Your task to perform on an android device: Clear the shopping cart on bestbuy. Add "lg ultragear" to the cart on bestbuy, then select checkout. Image 0: 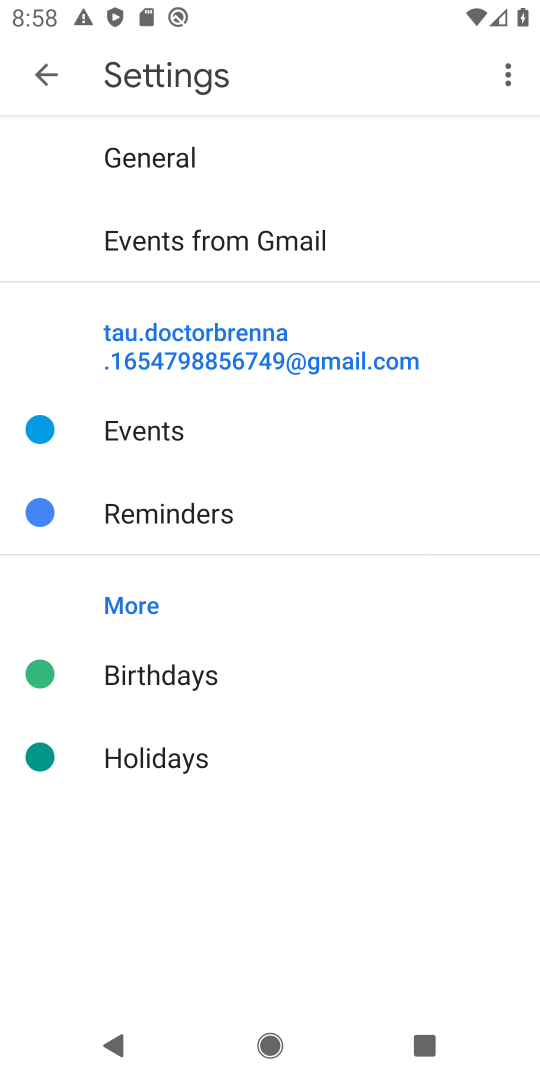
Step 0: press home button
Your task to perform on an android device: Clear the shopping cart on bestbuy. Add "lg ultragear" to the cart on bestbuy, then select checkout. Image 1: 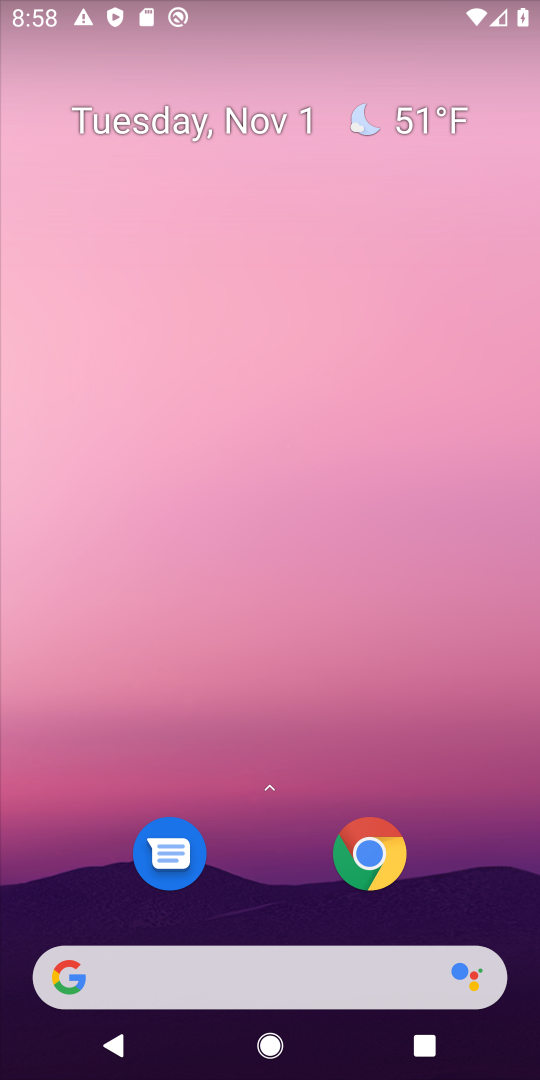
Step 1: click (300, 980)
Your task to perform on an android device: Clear the shopping cart on bestbuy. Add "lg ultragear" to the cart on bestbuy, then select checkout. Image 2: 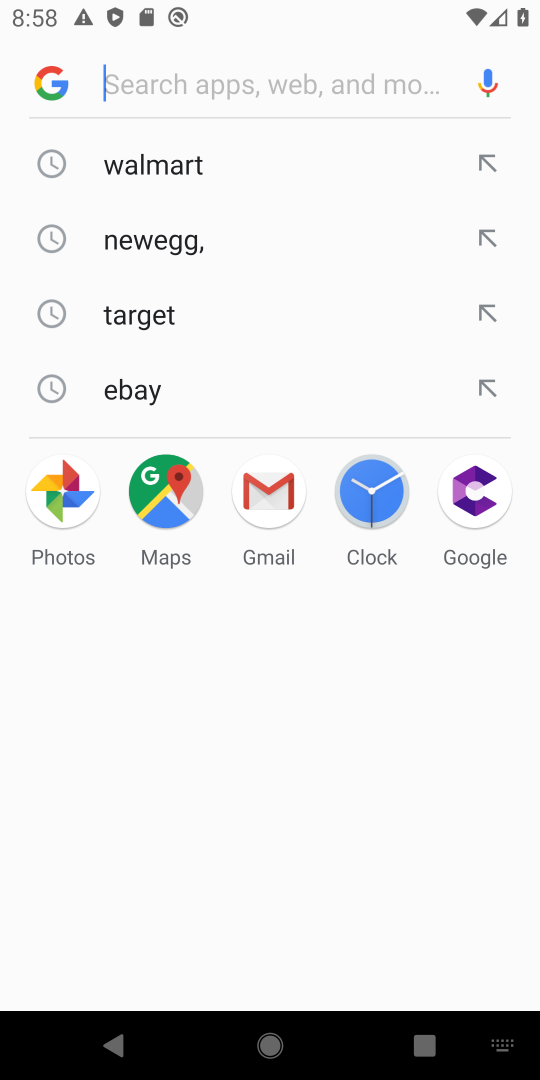
Step 2: type "bestbuy"
Your task to perform on an android device: Clear the shopping cart on bestbuy. Add "lg ultragear" to the cart on bestbuy, then select checkout. Image 3: 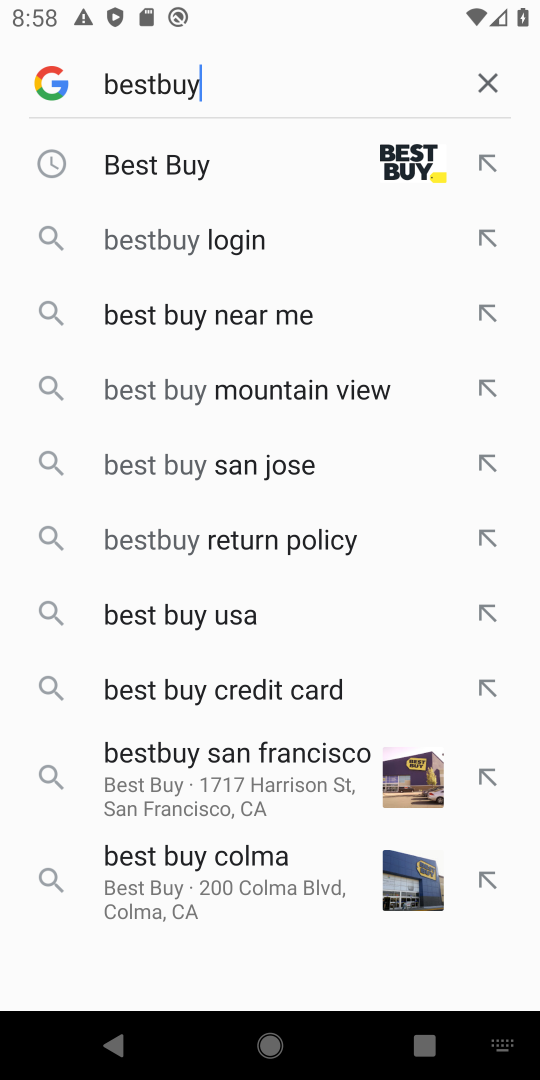
Step 3: click (335, 138)
Your task to perform on an android device: Clear the shopping cart on bestbuy. Add "lg ultragear" to the cart on bestbuy, then select checkout. Image 4: 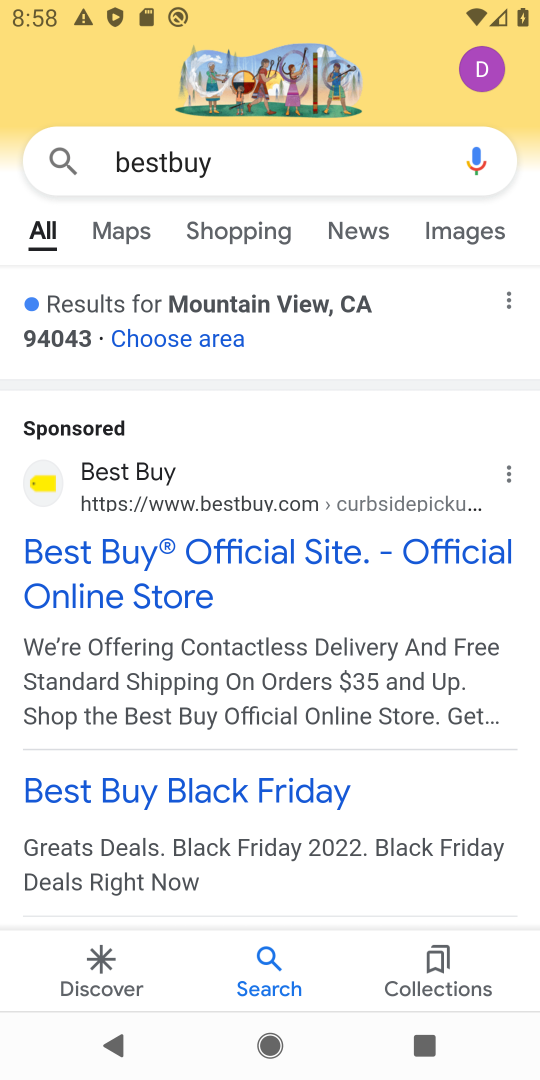
Step 4: click (159, 565)
Your task to perform on an android device: Clear the shopping cart on bestbuy. Add "lg ultragear" to the cart on bestbuy, then select checkout. Image 5: 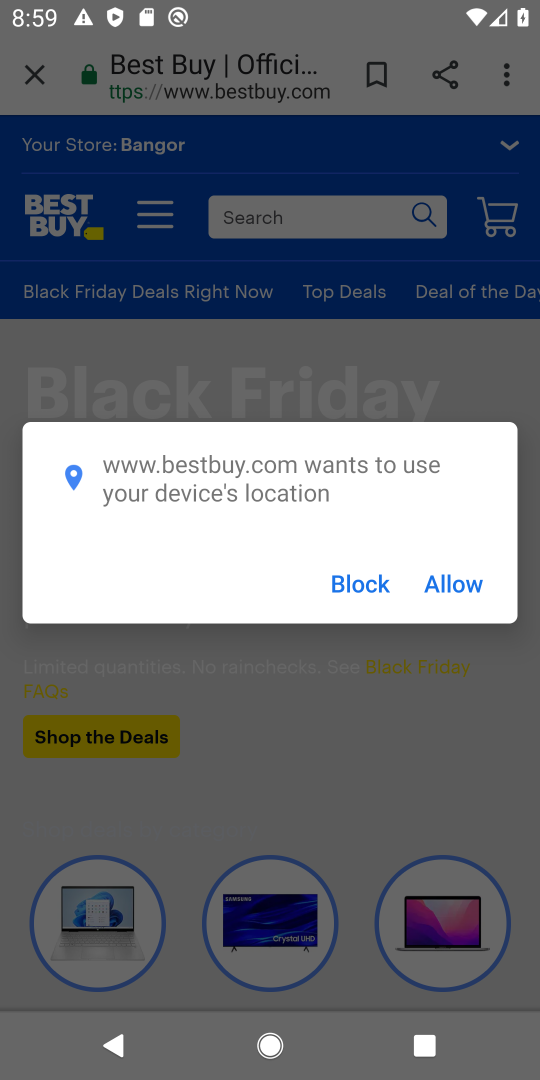
Step 5: click (319, 589)
Your task to perform on an android device: Clear the shopping cart on bestbuy. Add "lg ultragear" to the cart on bestbuy, then select checkout. Image 6: 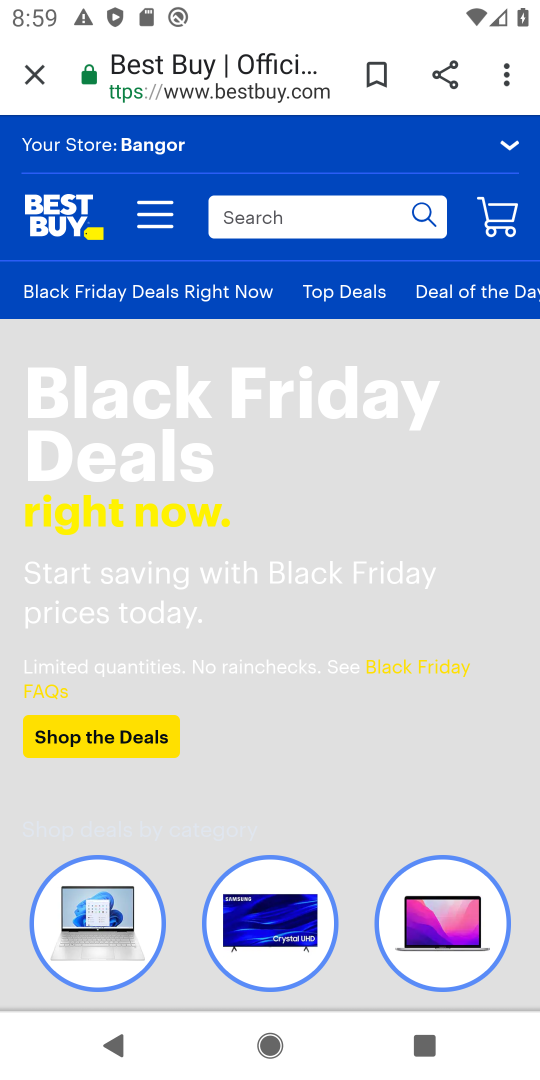
Step 6: click (252, 230)
Your task to perform on an android device: Clear the shopping cart on bestbuy. Add "lg ultragear" to the cart on bestbuy, then select checkout. Image 7: 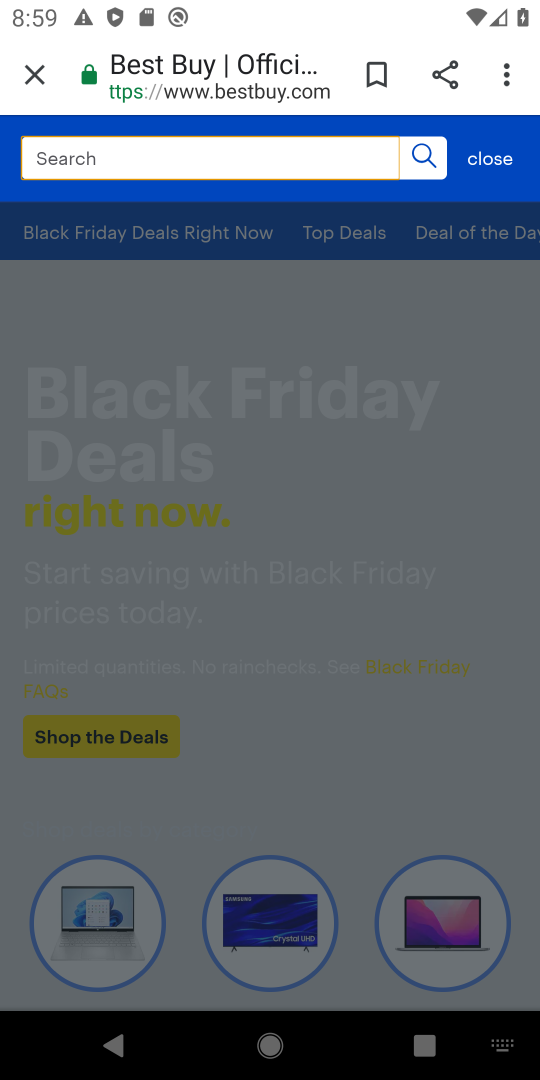
Step 7: type "lg ultragear"
Your task to perform on an android device: Clear the shopping cart on bestbuy. Add "lg ultragear" to the cart on bestbuy, then select checkout. Image 8: 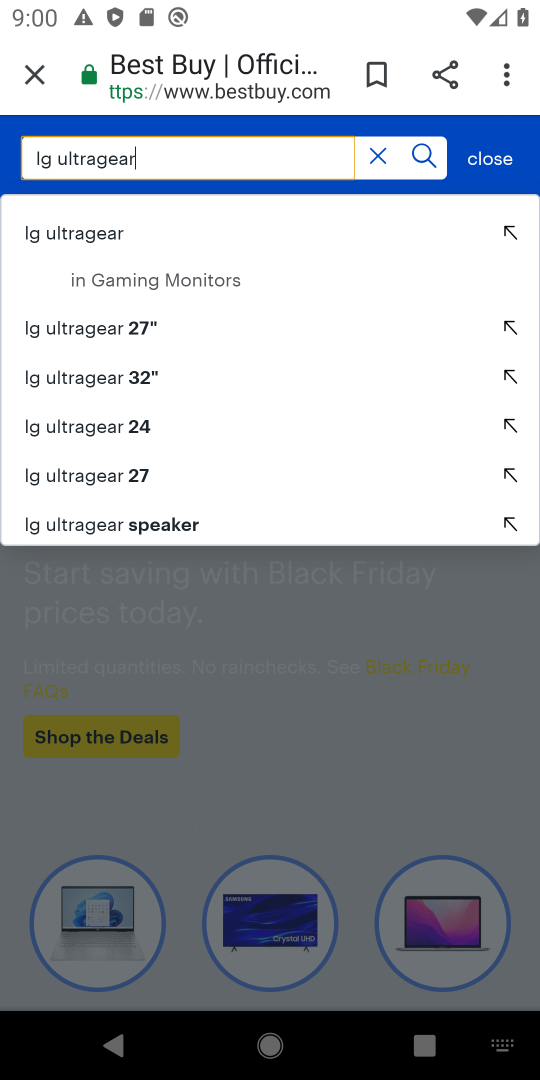
Step 8: click (287, 239)
Your task to perform on an android device: Clear the shopping cart on bestbuy. Add "lg ultragear" to the cart on bestbuy, then select checkout. Image 9: 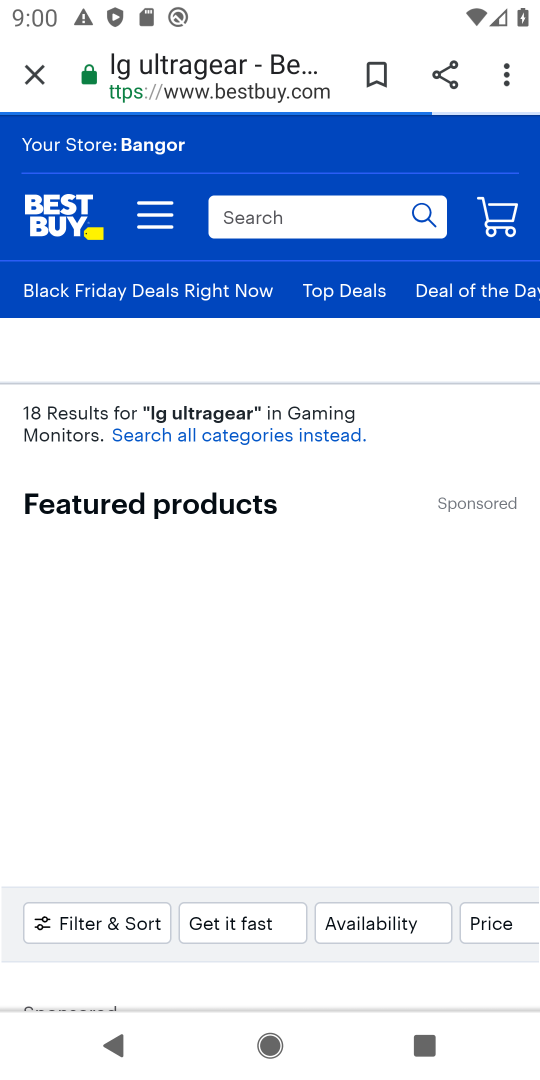
Step 9: drag from (272, 733) to (289, 330)
Your task to perform on an android device: Clear the shopping cart on bestbuy. Add "lg ultragear" to the cart on bestbuy, then select checkout. Image 10: 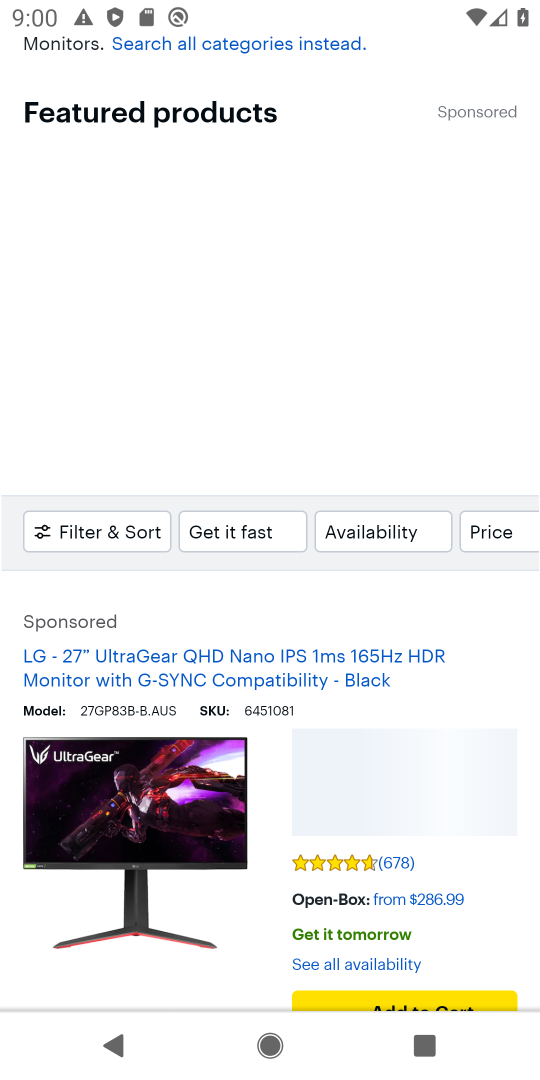
Step 10: click (347, 946)
Your task to perform on an android device: Clear the shopping cart on bestbuy. Add "lg ultragear" to the cart on bestbuy, then select checkout. Image 11: 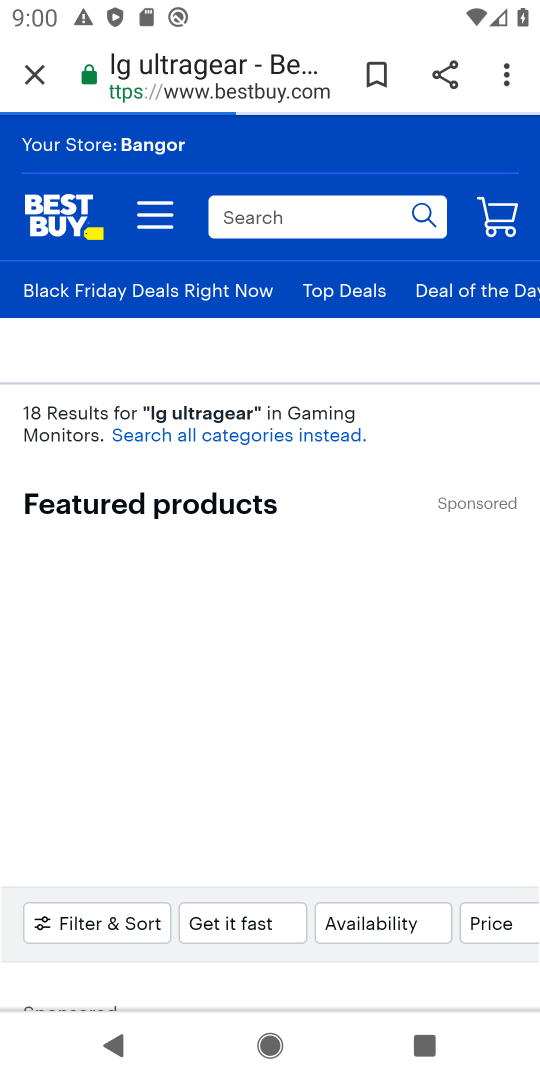
Step 11: drag from (358, 931) to (358, 554)
Your task to perform on an android device: Clear the shopping cart on bestbuy. Add "lg ultragear" to the cart on bestbuy, then select checkout. Image 12: 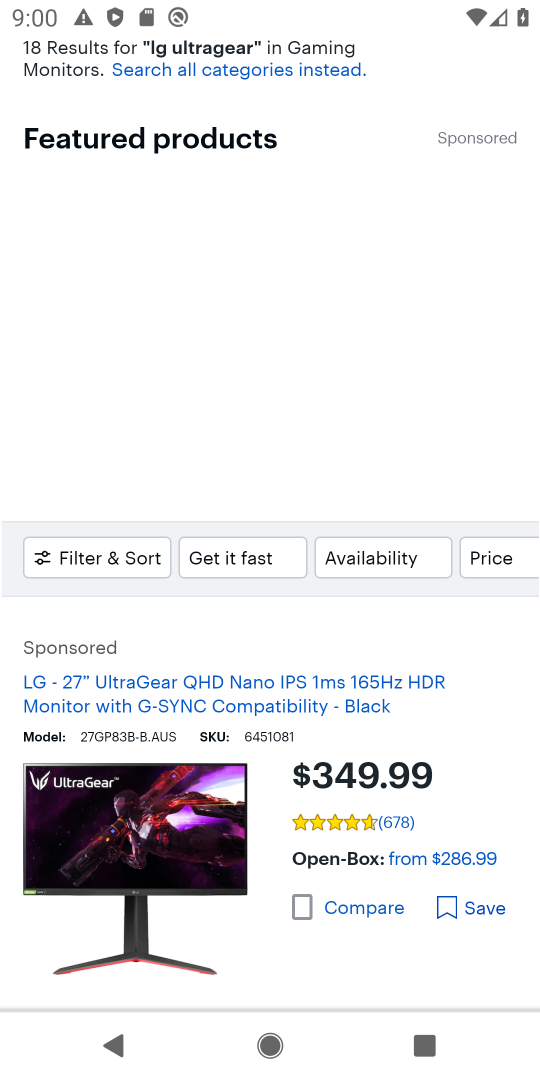
Step 12: drag from (320, 949) to (336, 682)
Your task to perform on an android device: Clear the shopping cart on bestbuy. Add "lg ultragear" to the cart on bestbuy, then select checkout. Image 13: 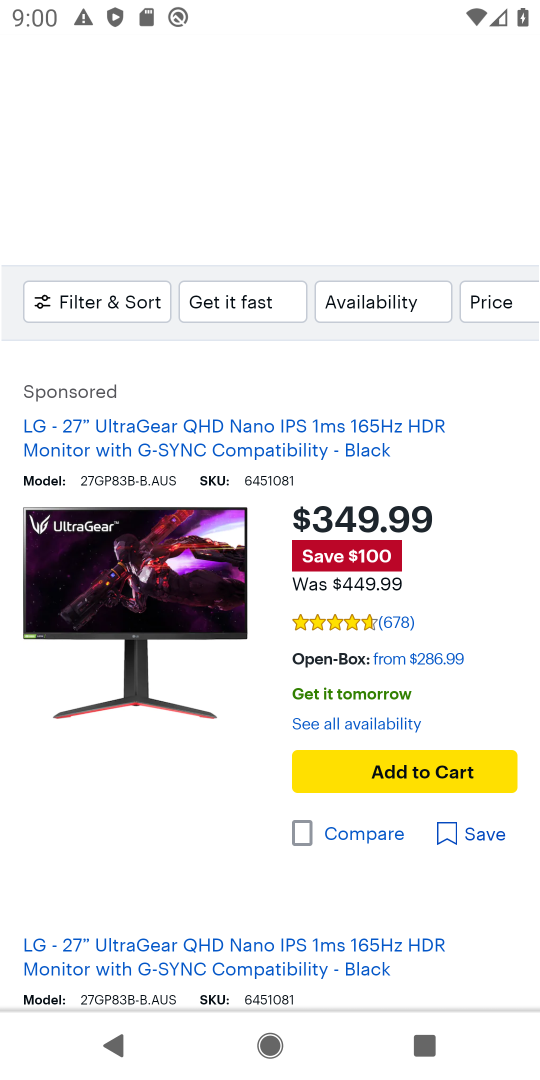
Step 13: click (363, 759)
Your task to perform on an android device: Clear the shopping cart on bestbuy. Add "lg ultragear" to the cart on bestbuy, then select checkout. Image 14: 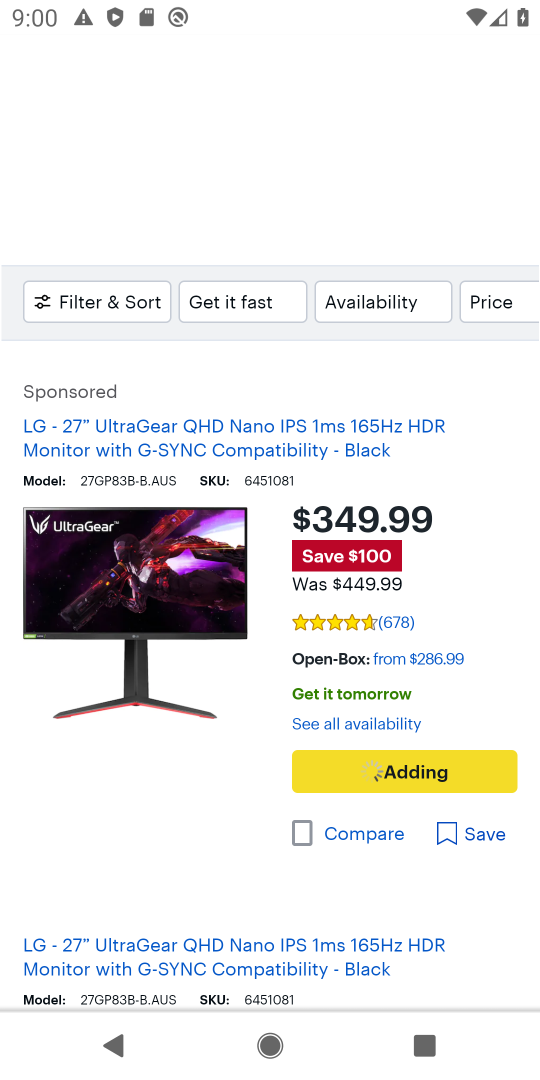
Step 14: task complete